Your task to perform on an android device: turn off priority inbox in the gmail app Image 0: 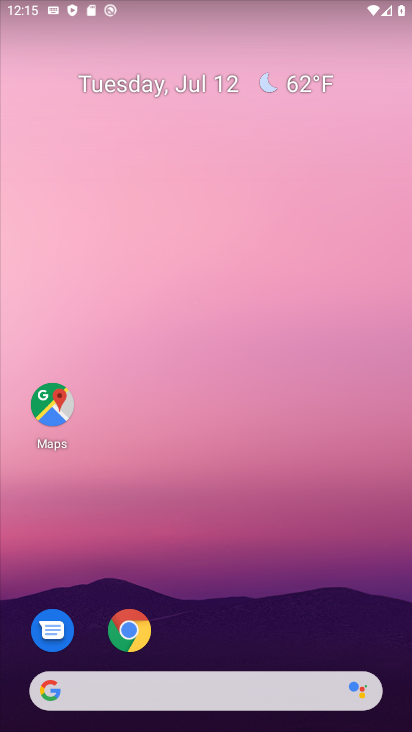
Step 0: drag from (242, 565) to (224, 132)
Your task to perform on an android device: turn off priority inbox in the gmail app Image 1: 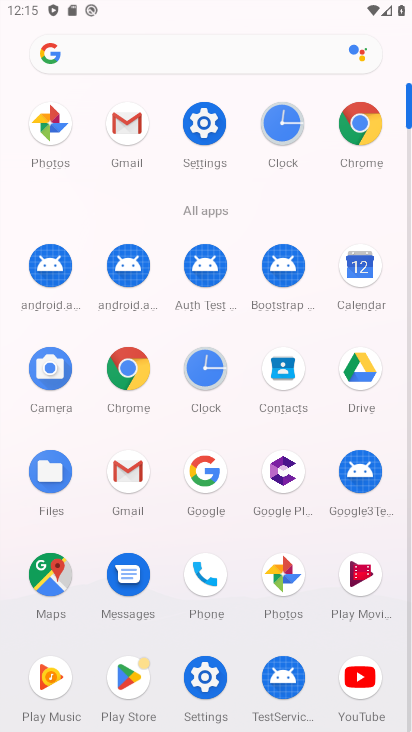
Step 1: click (119, 466)
Your task to perform on an android device: turn off priority inbox in the gmail app Image 2: 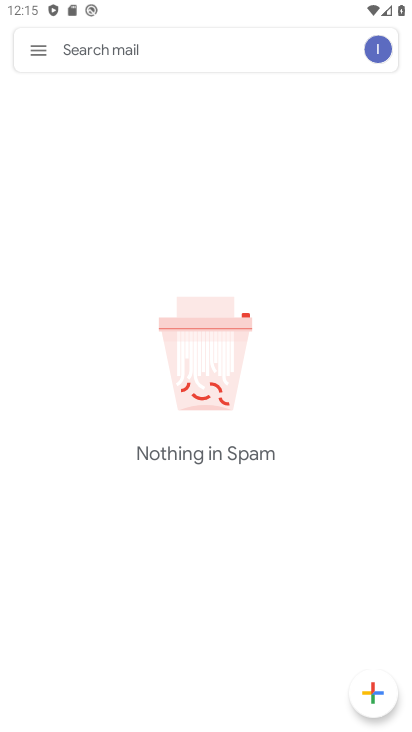
Step 2: click (29, 51)
Your task to perform on an android device: turn off priority inbox in the gmail app Image 3: 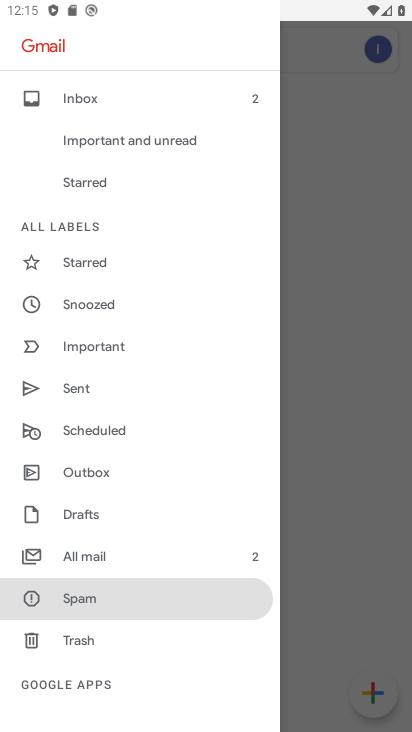
Step 3: drag from (124, 666) to (126, 387)
Your task to perform on an android device: turn off priority inbox in the gmail app Image 4: 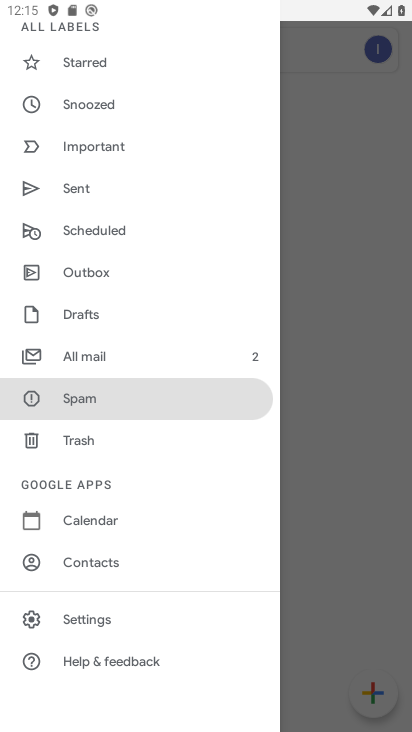
Step 4: click (97, 615)
Your task to perform on an android device: turn off priority inbox in the gmail app Image 5: 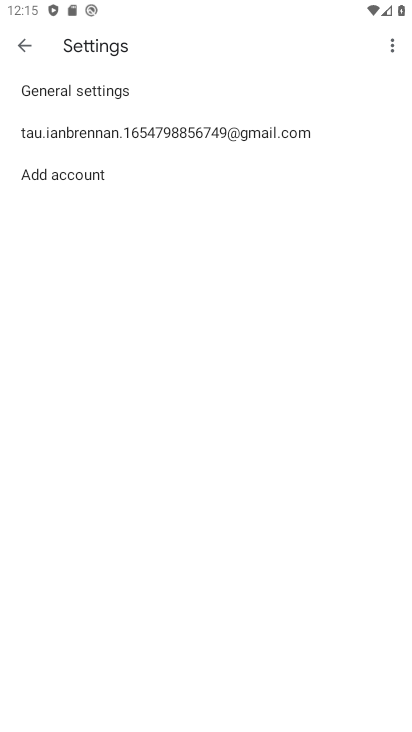
Step 5: click (98, 136)
Your task to perform on an android device: turn off priority inbox in the gmail app Image 6: 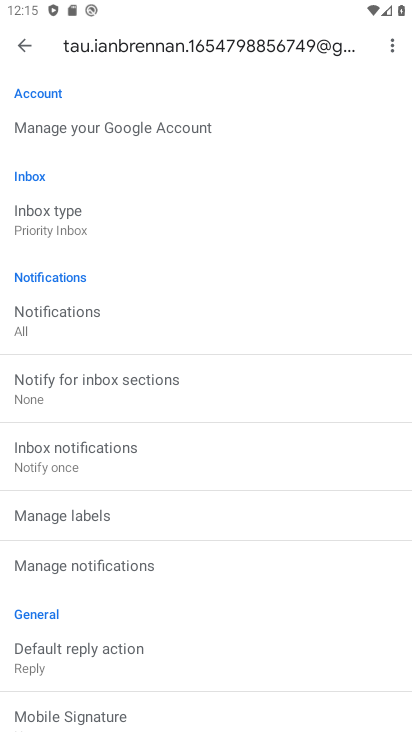
Step 6: click (49, 217)
Your task to perform on an android device: turn off priority inbox in the gmail app Image 7: 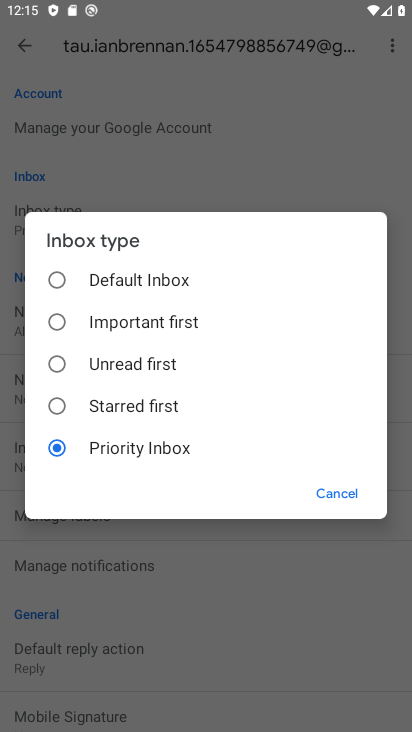
Step 7: click (59, 282)
Your task to perform on an android device: turn off priority inbox in the gmail app Image 8: 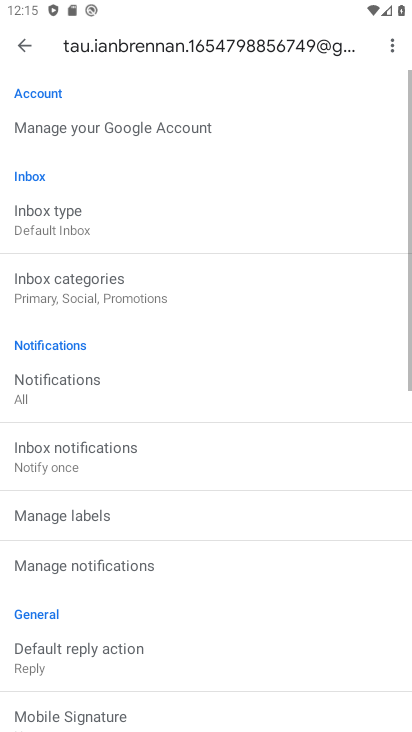
Step 8: task complete